Your task to perform on an android device: change keyboard looks Image 0: 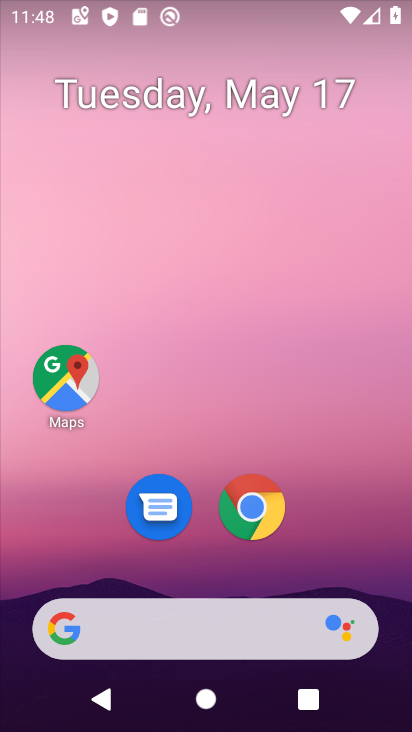
Step 0: drag from (318, 519) to (330, 233)
Your task to perform on an android device: change keyboard looks Image 1: 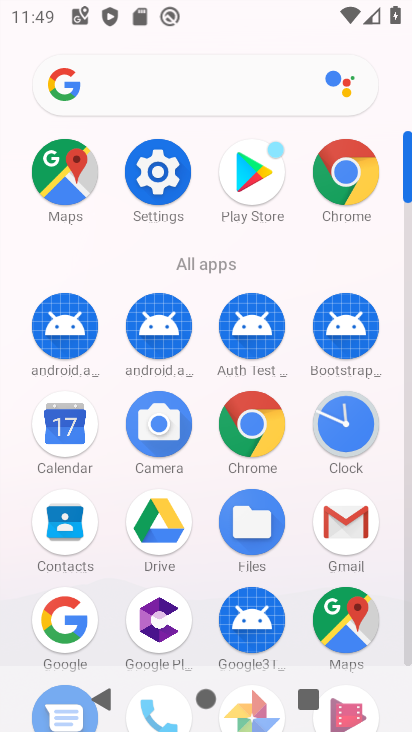
Step 1: click (161, 177)
Your task to perform on an android device: change keyboard looks Image 2: 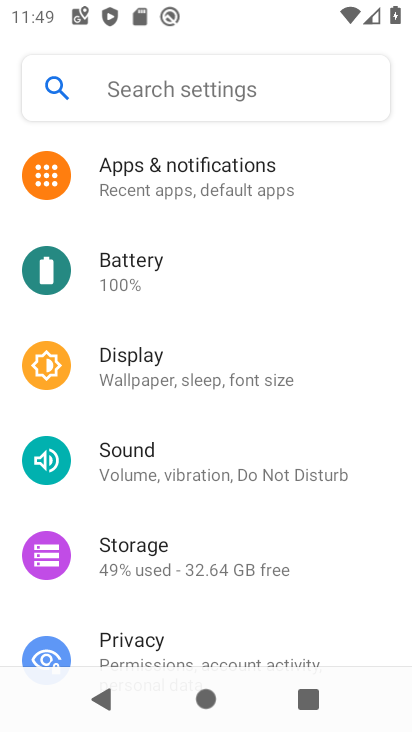
Step 2: drag from (200, 603) to (255, 170)
Your task to perform on an android device: change keyboard looks Image 3: 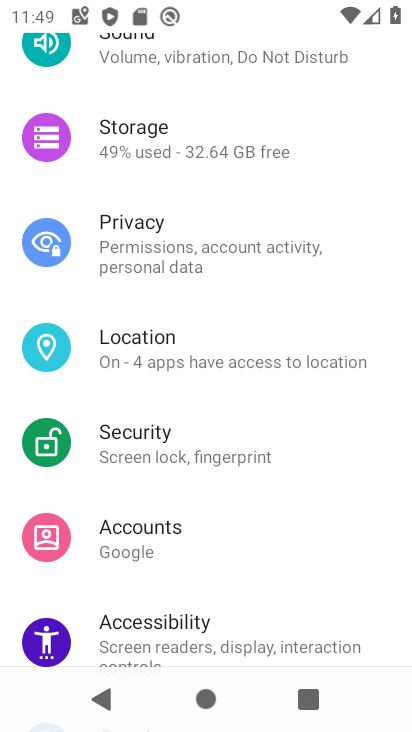
Step 3: drag from (187, 543) to (259, 257)
Your task to perform on an android device: change keyboard looks Image 4: 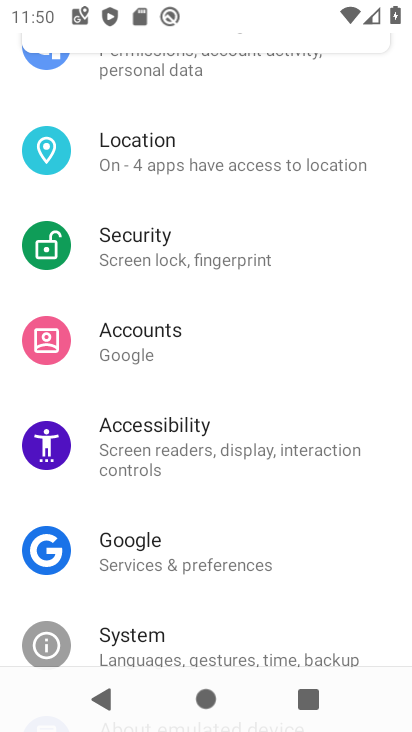
Step 4: click (227, 467)
Your task to perform on an android device: change keyboard looks Image 5: 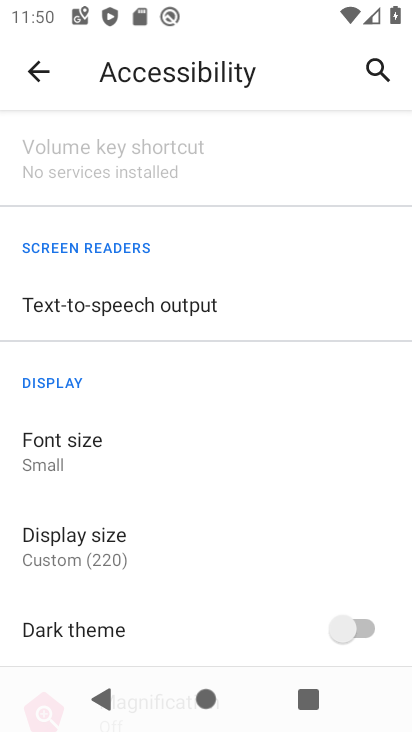
Step 5: click (30, 82)
Your task to perform on an android device: change keyboard looks Image 6: 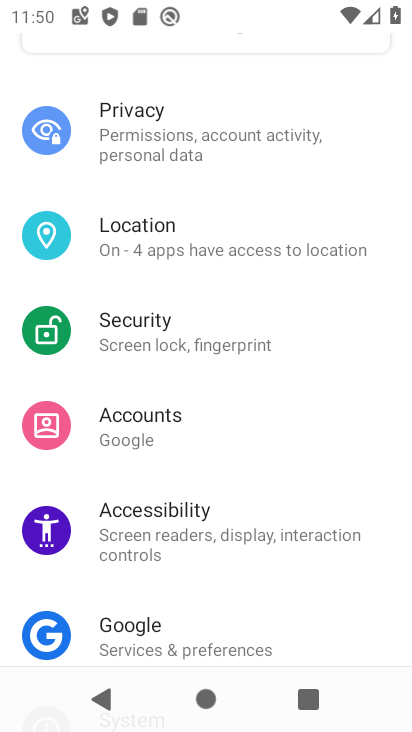
Step 6: drag from (189, 558) to (234, 207)
Your task to perform on an android device: change keyboard looks Image 7: 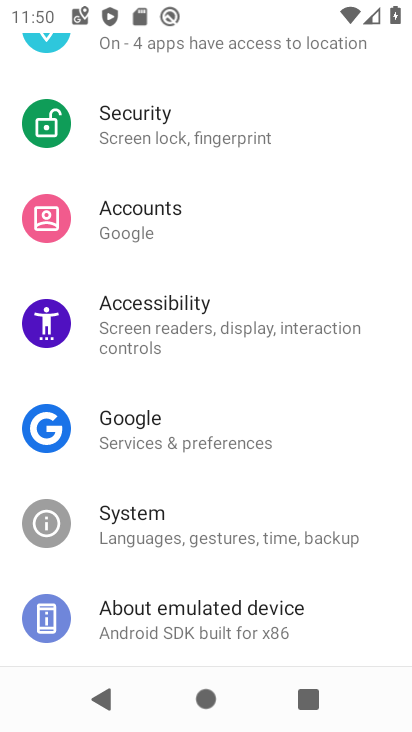
Step 7: click (206, 597)
Your task to perform on an android device: change keyboard looks Image 8: 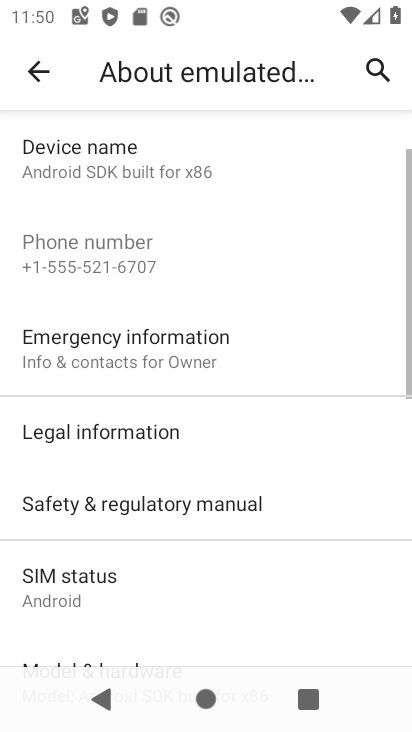
Step 8: click (42, 64)
Your task to perform on an android device: change keyboard looks Image 9: 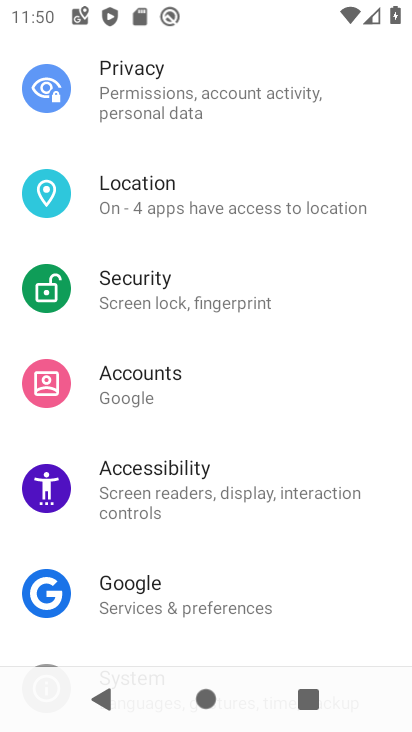
Step 9: drag from (227, 537) to (259, 267)
Your task to perform on an android device: change keyboard looks Image 10: 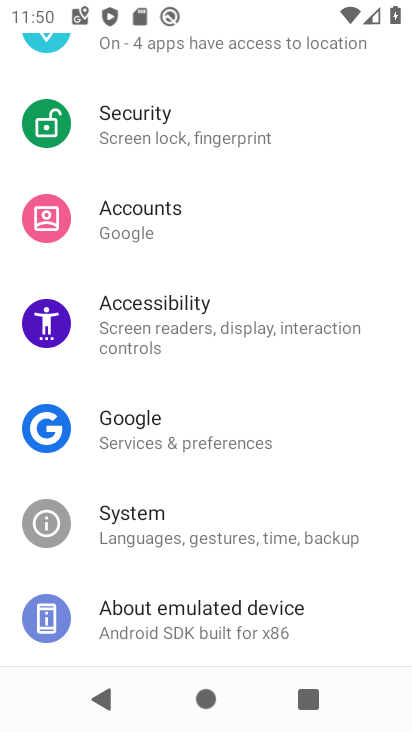
Step 10: click (246, 541)
Your task to perform on an android device: change keyboard looks Image 11: 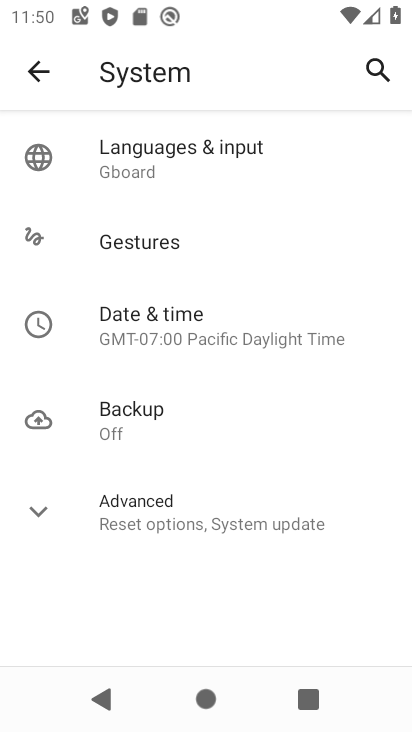
Step 11: click (142, 158)
Your task to perform on an android device: change keyboard looks Image 12: 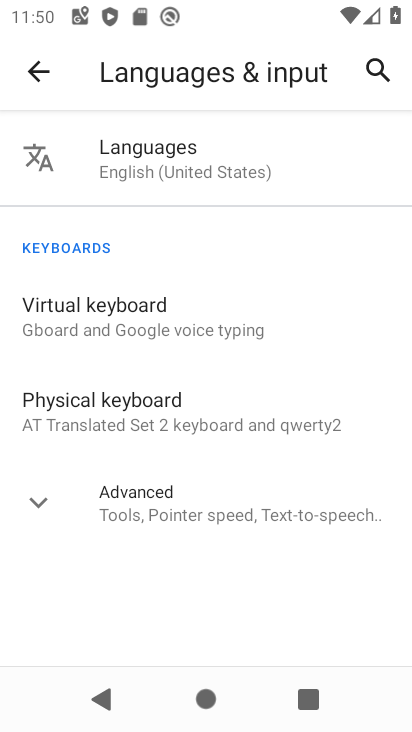
Step 12: click (113, 296)
Your task to perform on an android device: change keyboard looks Image 13: 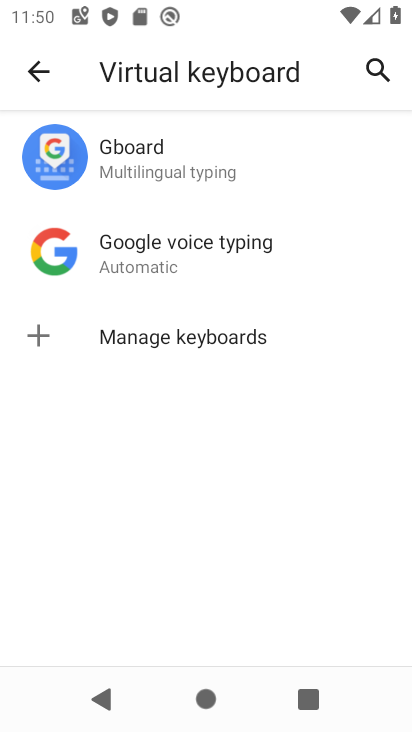
Step 13: click (138, 132)
Your task to perform on an android device: change keyboard looks Image 14: 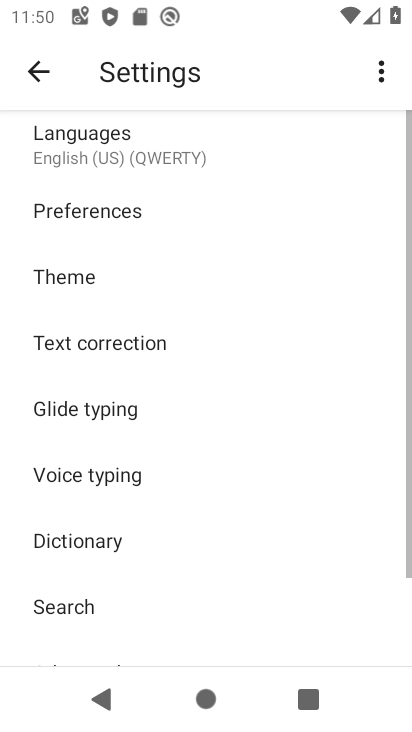
Step 14: click (139, 475)
Your task to perform on an android device: change keyboard looks Image 15: 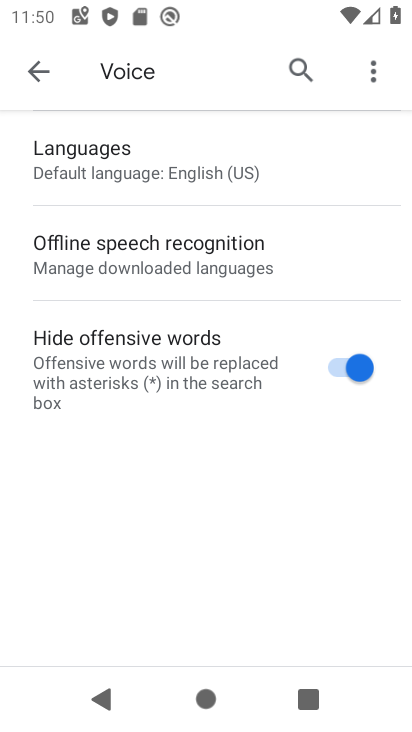
Step 15: click (41, 66)
Your task to perform on an android device: change keyboard looks Image 16: 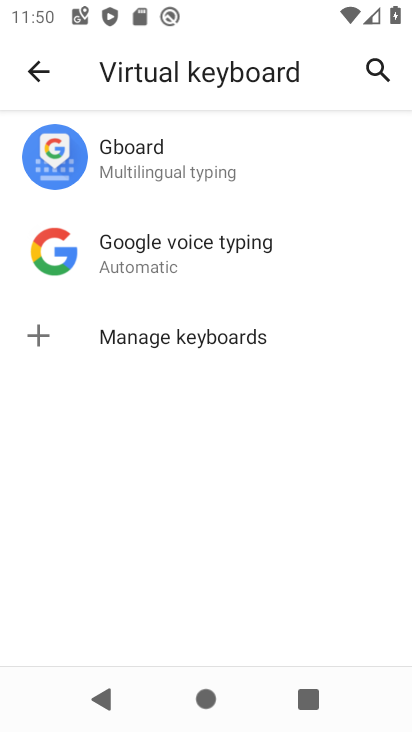
Step 16: click (166, 153)
Your task to perform on an android device: change keyboard looks Image 17: 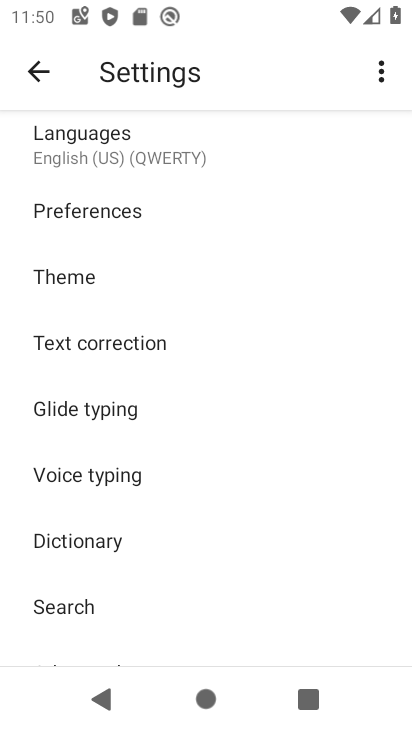
Step 17: click (64, 269)
Your task to perform on an android device: change keyboard looks Image 18: 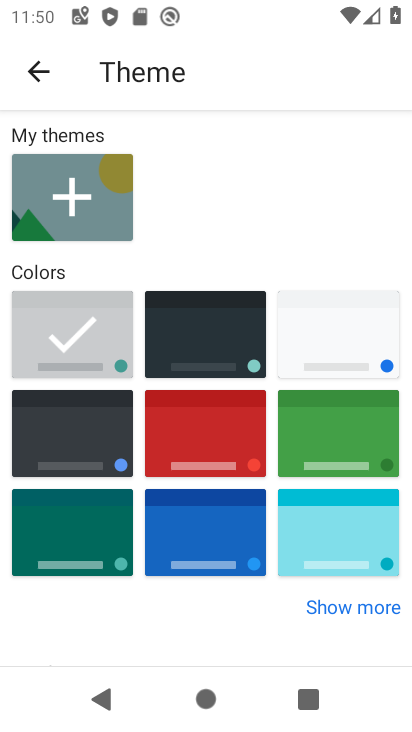
Step 18: click (212, 515)
Your task to perform on an android device: change keyboard looks Image 19: 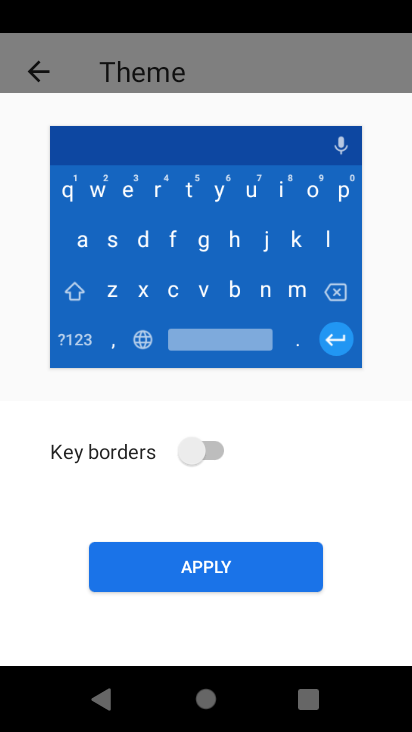
Step 19: click (254, 572)
Your task to perform on an android device: change keyboard looks Image 20: 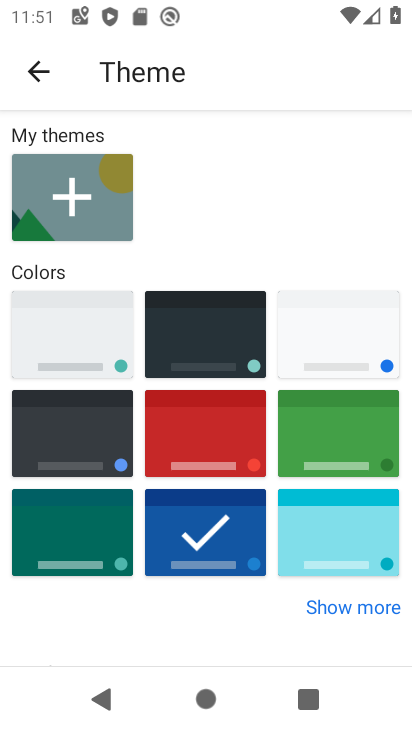
Step 20: task complete